Your task to perform on an android device: Go to battery settings Image 0: 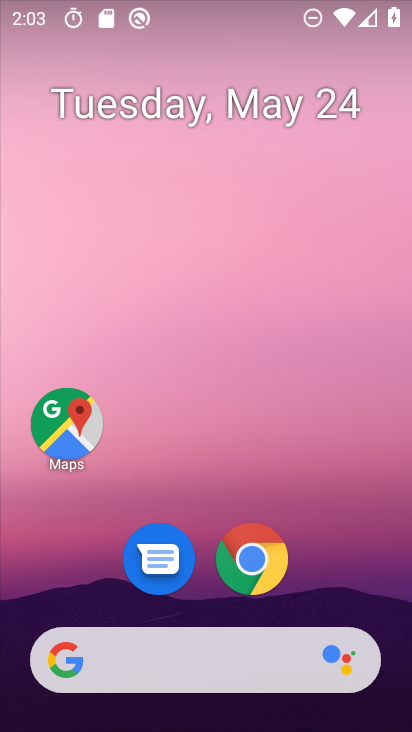
Step 0: drag from (390, 654) to (348, 38)
Your task to perform on an android device: Go to battery settings Image 1: 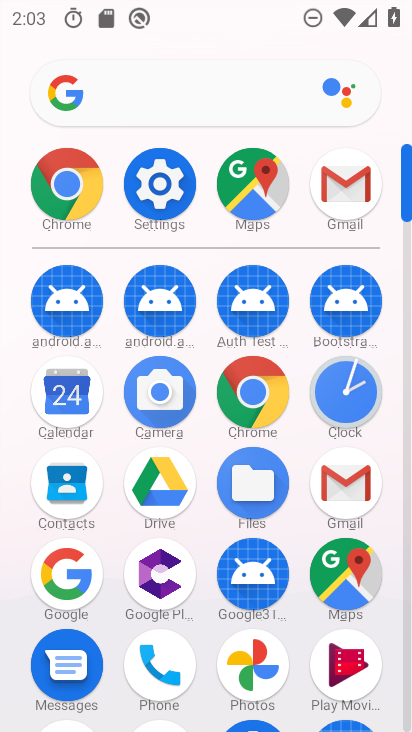
Step 1: click (161, 198)
Your task to perform on an android device: Go to battery settings Image 2: 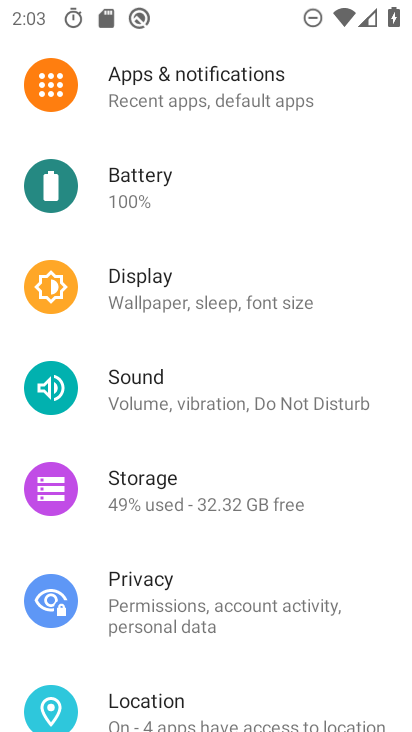
Step 2: click (134, 168)
Your task to perform on an android device: Go to battery settings Image 3: 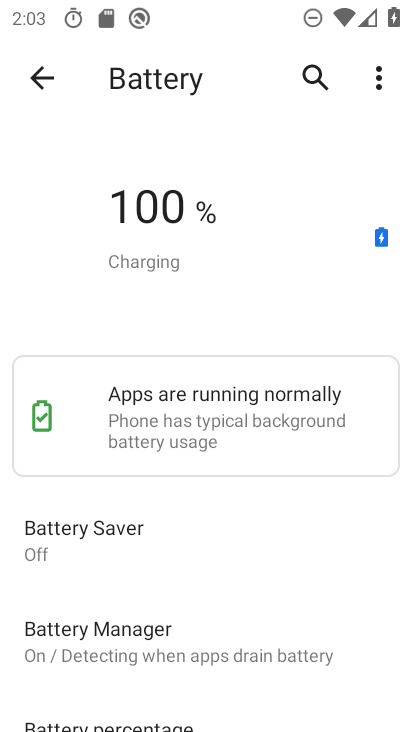
Step 3: task complete